Your task to perform on an android device: View the shopping cart on newegg. Image 0: 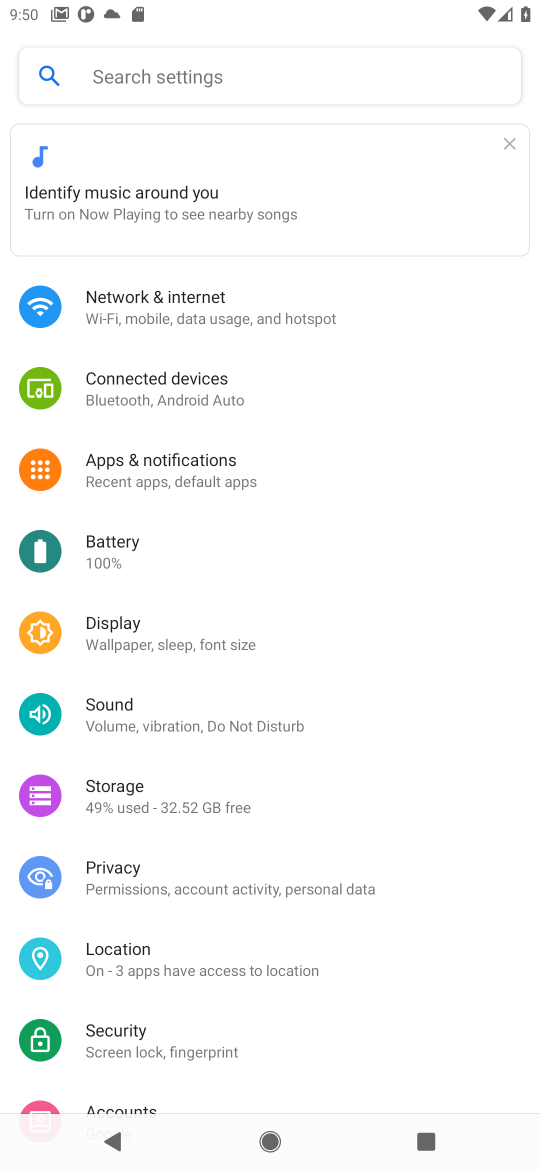
Step 0: press home button
Your task to perform on an android device: View the shopping cart on newegg. Image 1: 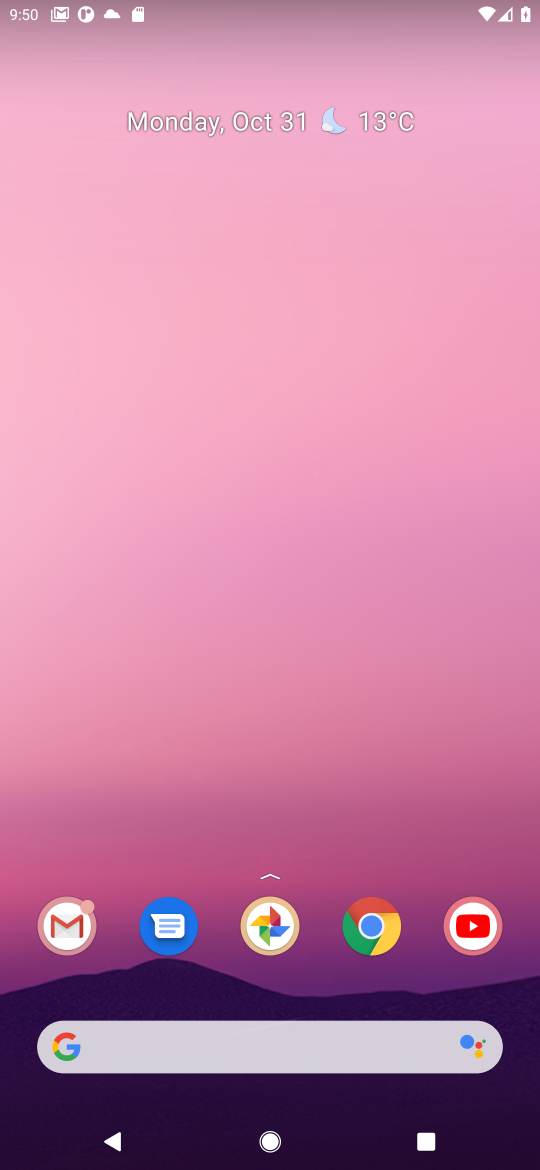
Step 1: click (314, 1055)
Your task to perform on an android device: View the shopping cart on newegg. Image 2: 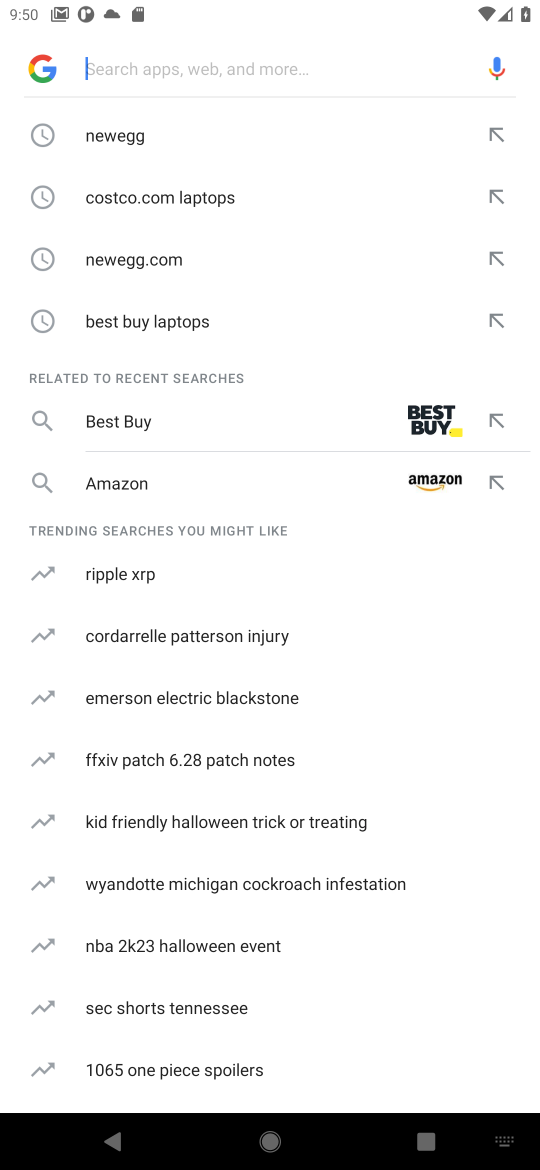
Step 2: click (110, 141)
Your task to perform on an android device: View the shopping cart on newegg. Image 3: 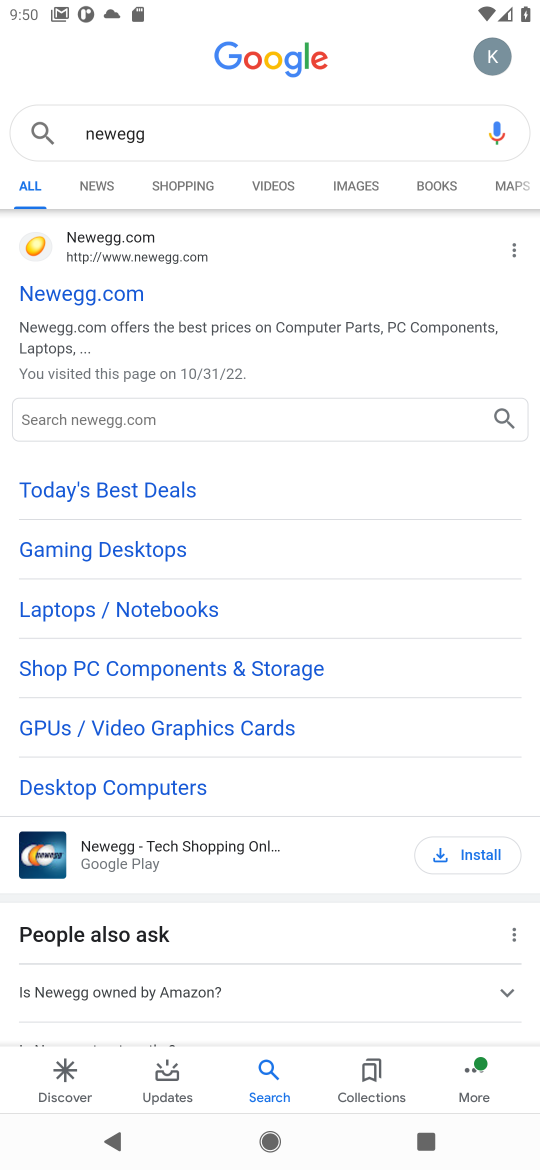
Step 3: click (94, 293)
Your task to perform on an android device: View the shopping cart on newegg. Image 4: 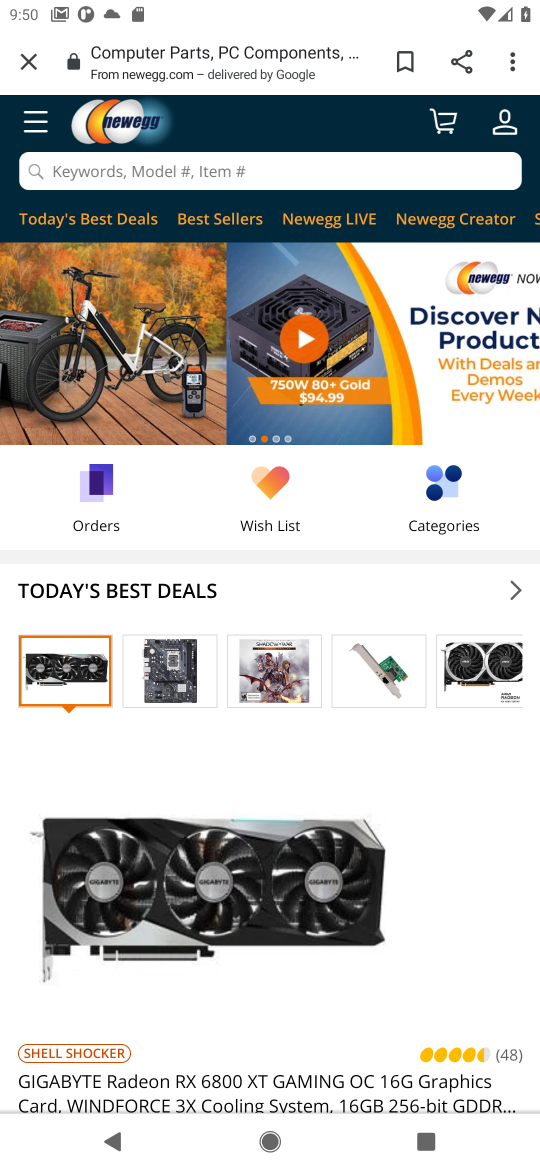
Step 4: click (448, 121)
Your task to perform on an android device: View the shopping cart on newegg. Image 5: 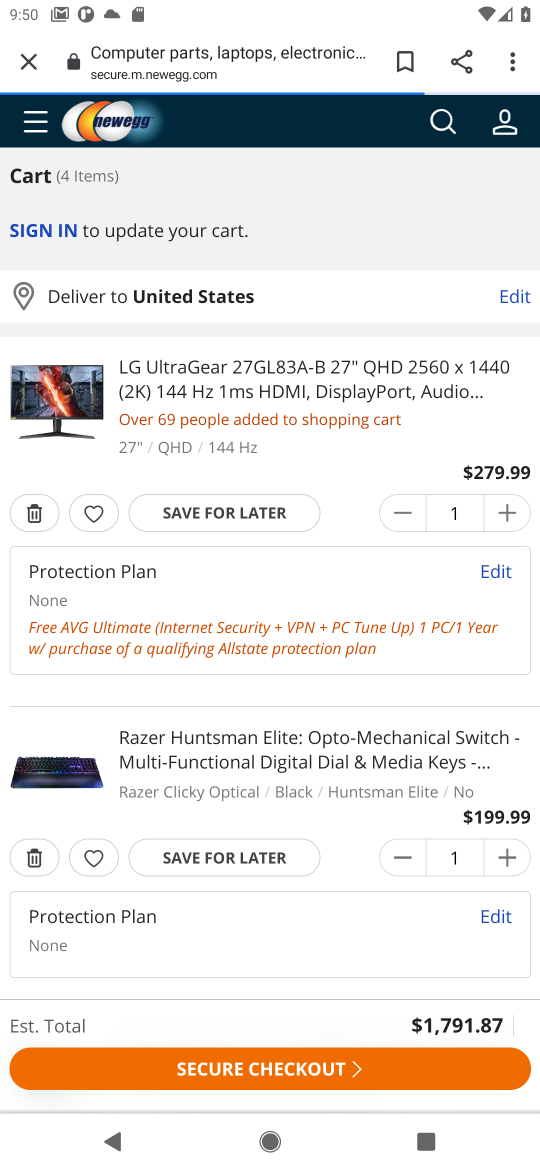
Step 5: task complete